Your task to perform on an android device: Go to Wikipedia Image 0: 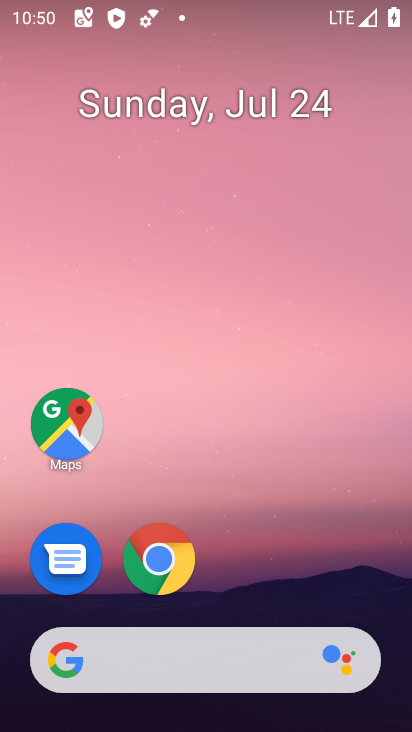
Step 0: click (147, 551)
Your task to perform on an android device: Go to Wikipedia Image 1: 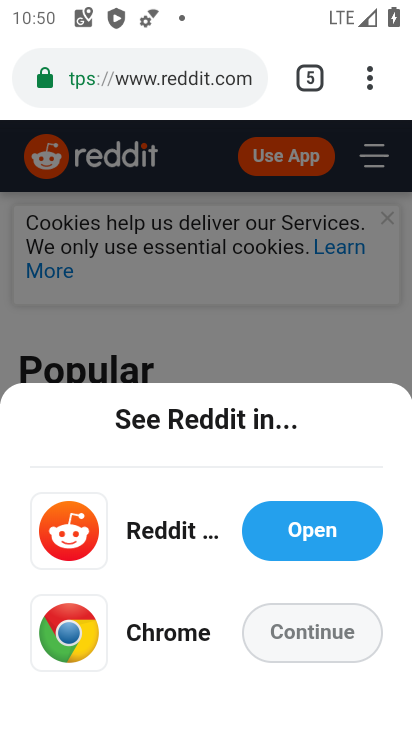
Step 1: click (305, 86)
Your task to perform on an android device: Go to Wikipedia Image 2: 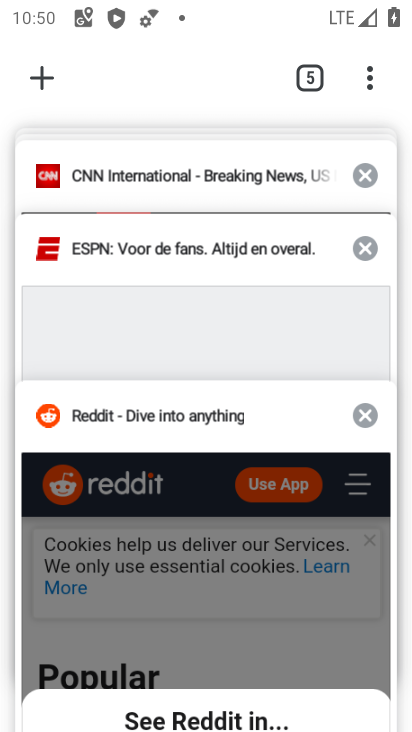
Step 2: click (58, 74)
Your task to perform on an android device: Go to Wikipedia Image 3: 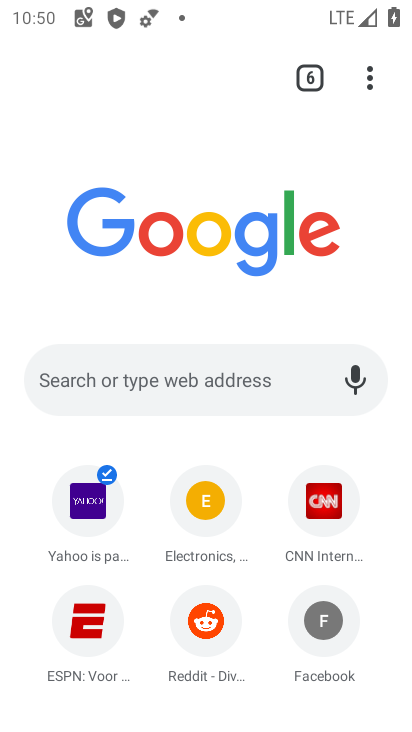
Step 3: click (102, 363)
Your task to perform on an android device: Go to Wikipedia Image 4: 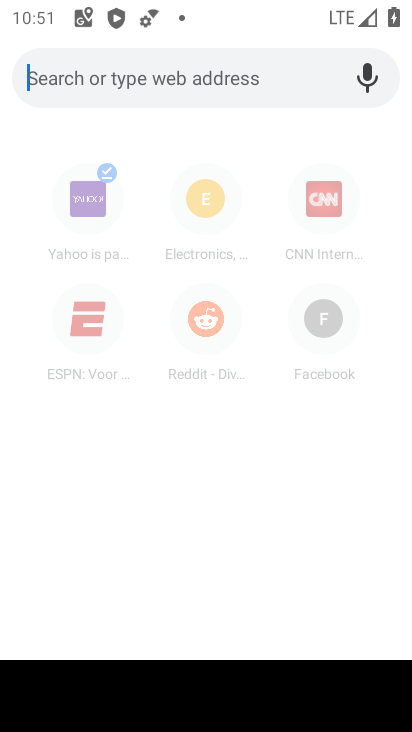
Step 4: type "wikipedia"
Your task to perform on an android device: Go to Wikipedia Image 5: 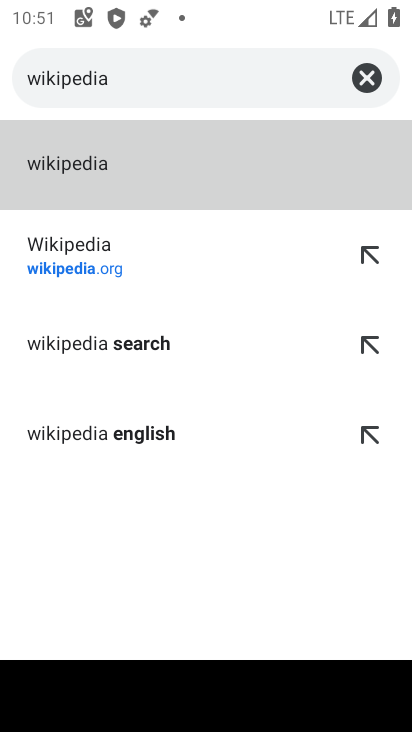
Step 5: click (140, 251)
Your task to perform on an android device: Go to Wikipedia Image 6: 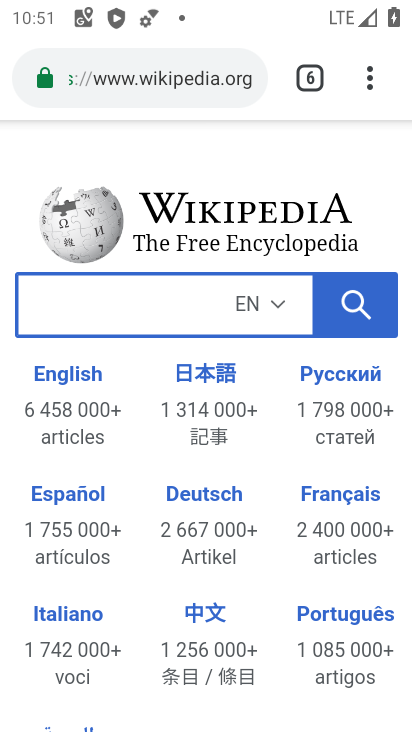
Step 6: task complete